Your task to perform on an android device: find photos in the google photos app Image 0: 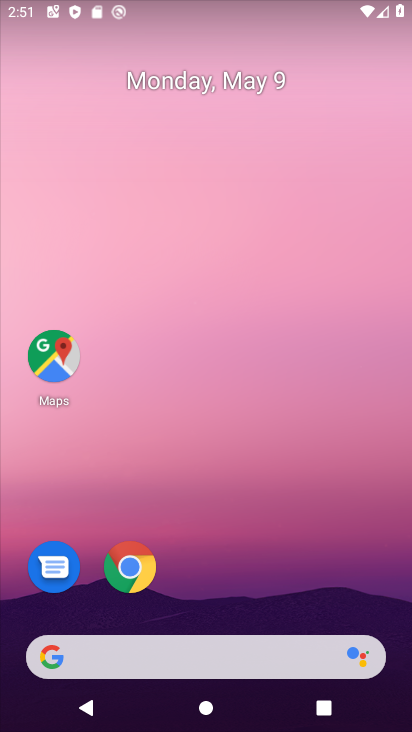
Step 0: drag from (265, 626) to (387, 124)
Your task to perform on an android device: find photos in the google photos app Image 1: 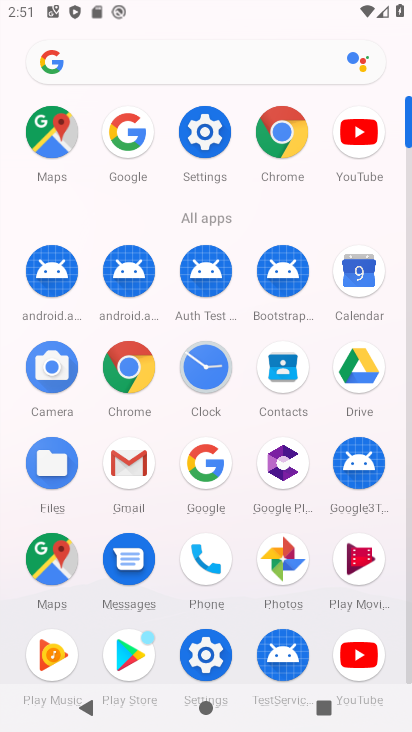
Step 1: click (278, 551)
Your task to perform on an android device: find photos in the google photos app Image 2: 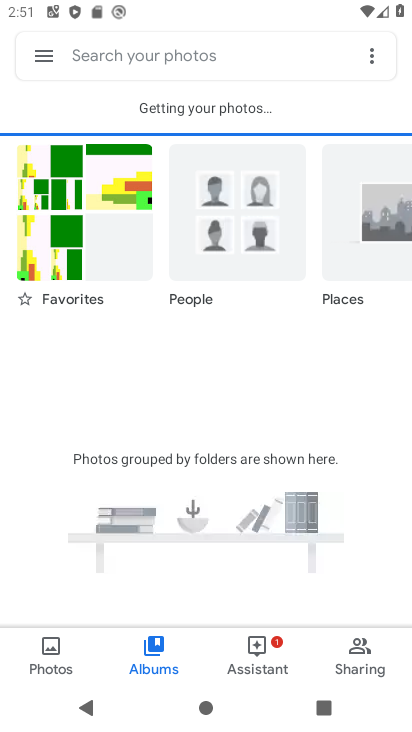
Step 2: click (63, 645)
Your task to perform on an android device: find photos in the google photos app Image 3: 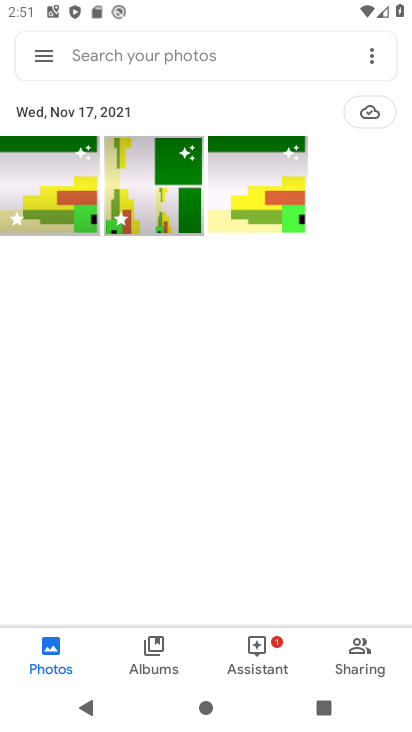
Step 3: task complete